Your task to perform on an android device: check battery use Image 0: 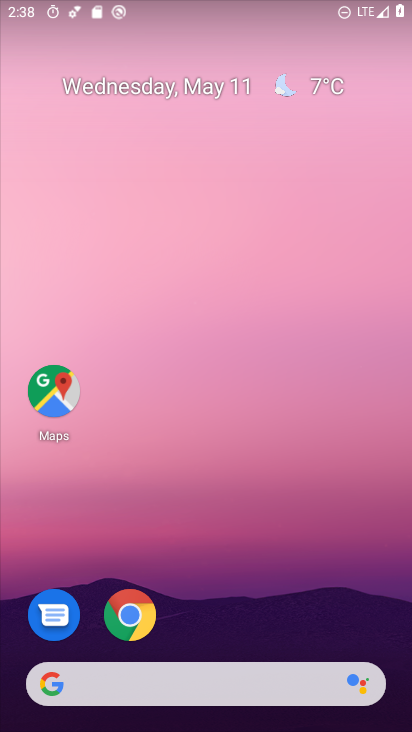
Step 0: drag from (262, 675) to (325, 265)
Your task to perform on an android device: check battery use Image 1: 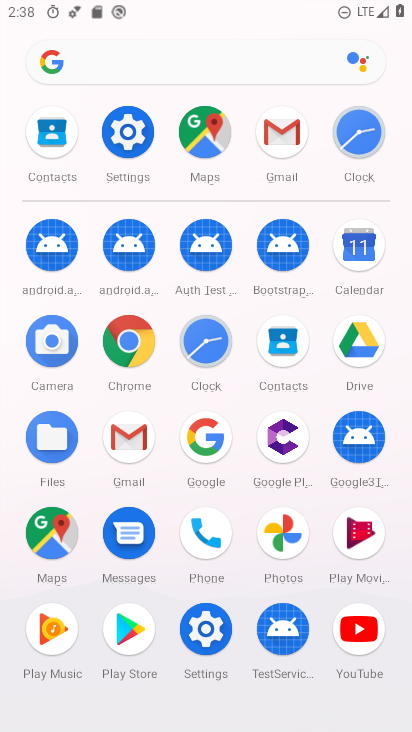
Step 1: click (134, 136)
Your task to perform on an android device: check battery use Image 2: 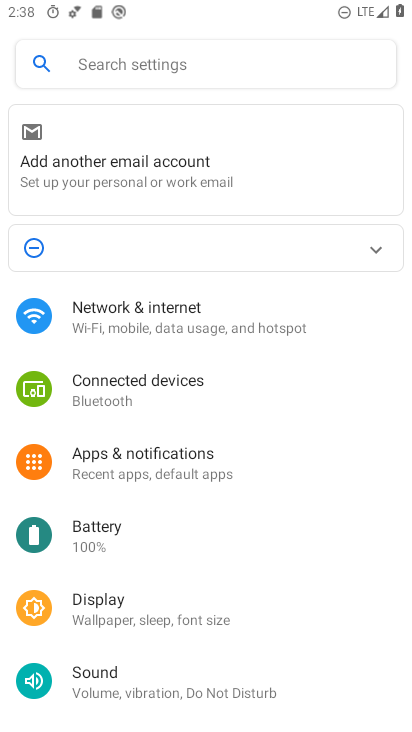
Step 2: click (161, 538)
Your task to perform on an android device: check battery use Image 3: 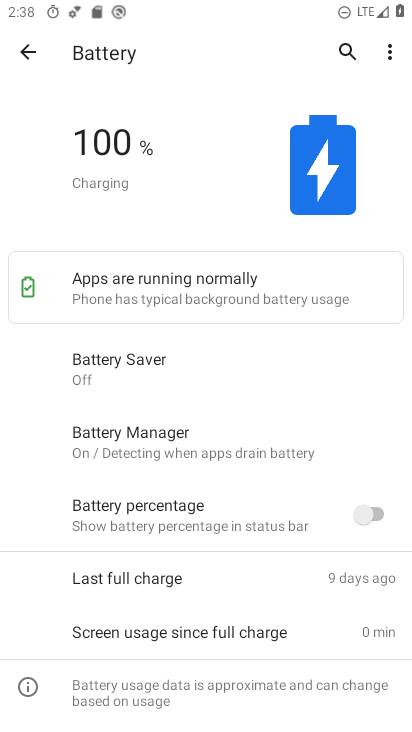
Step 3: task complete